Your task to perform on an android device: change the upload size in google photos Image 0: 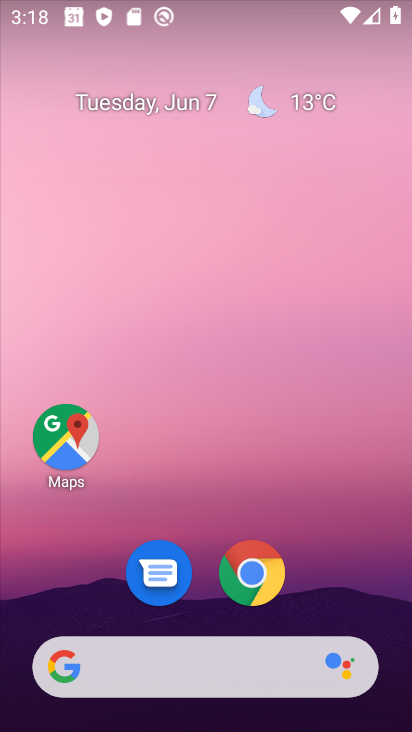
Step 0: drag from (391, 616) to (267, 262)
Your task to perform on an android device: change the upload size in google photos Image 1: 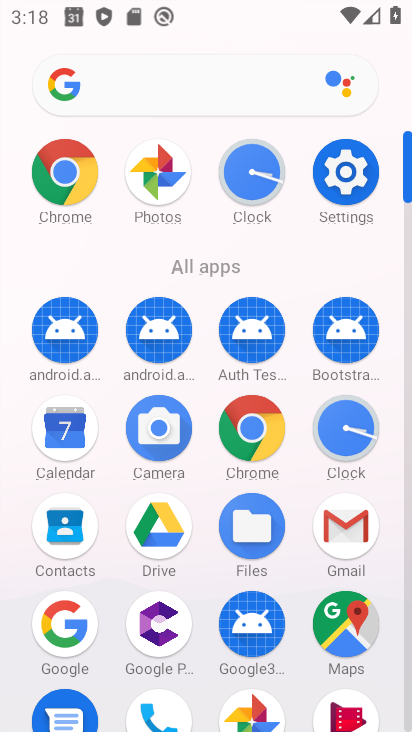
Step 1: click (161, 183)
Your task to perform on an android device: change the upload size in google photos Image 2: 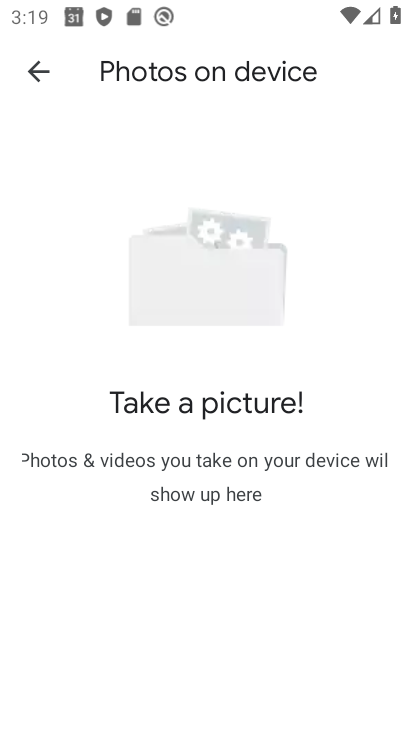
Step 2: click (42, 80)
Your task to perform on an android device: change the upload size in google photos Image 3: 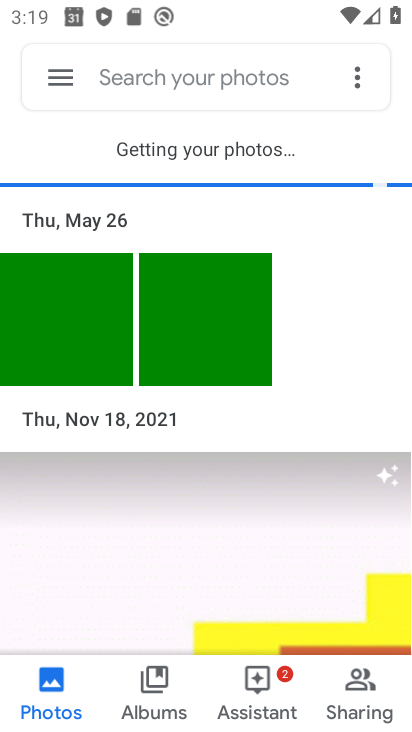
Step 3: click (53, 79)
Your task to perform on an android device: change the upload size in google photos Image 4: 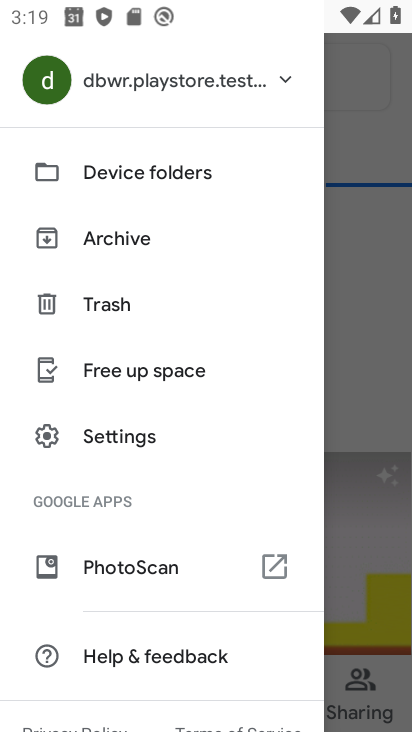
Step 4: click (188, 447)
Your task to perform on an android device: change the upload size in google photos Image 5: 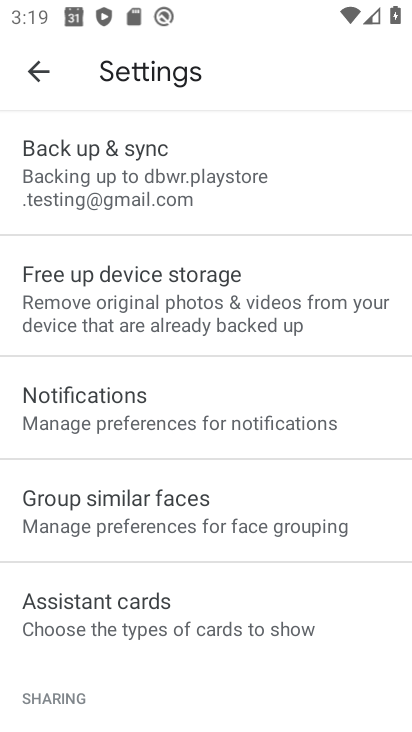
Step 5: click (159, 191)
Your task to perform on an android device: change the upload size in google photos Image 6: 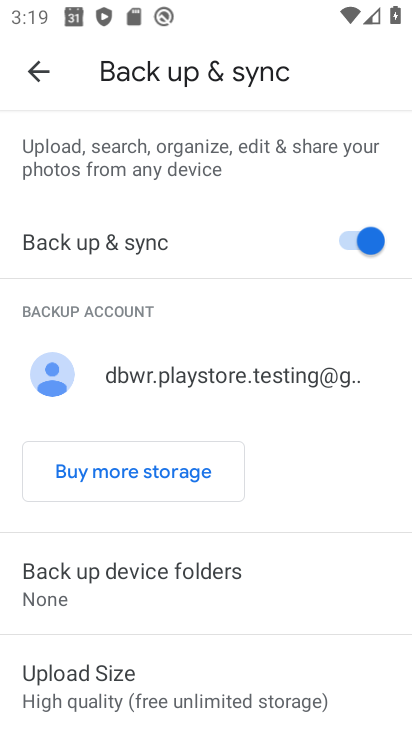
Step 6: drag from (283, 526) to (202, 182)
Your task to perform on an android device: change the upload size in google photos Image 7: 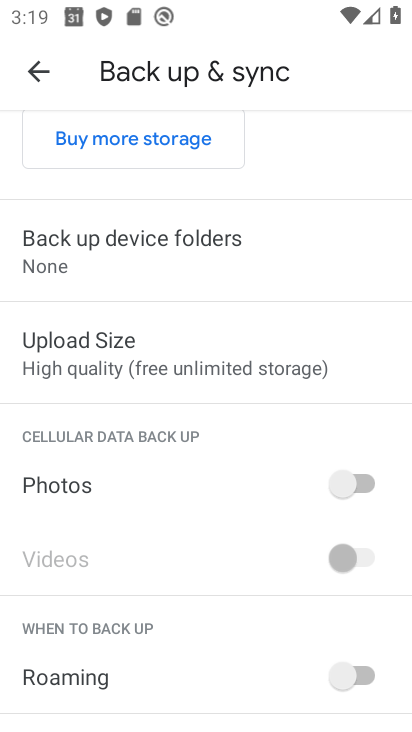
Step 7: click (220, 354)
Your task to perform on an android device: change the upload size in google photos Image 8: 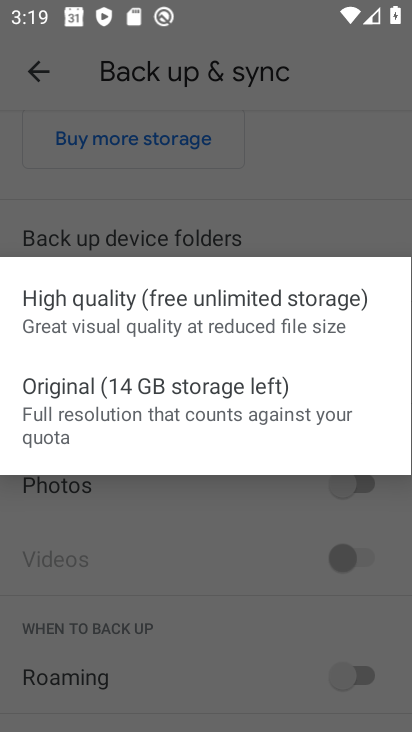
Step 8: click (156, 418)
Your task to perform on an android device: change the upload size in google photos Image 9: 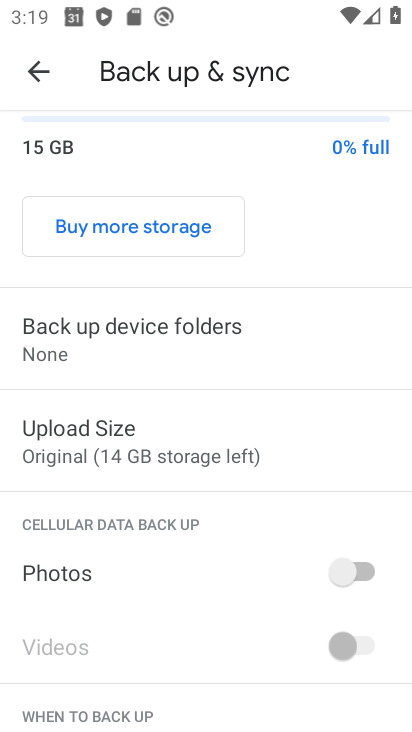
Step 9: task complete